Your task to perform on an android device: toggle translation in the chrome app Image 0: 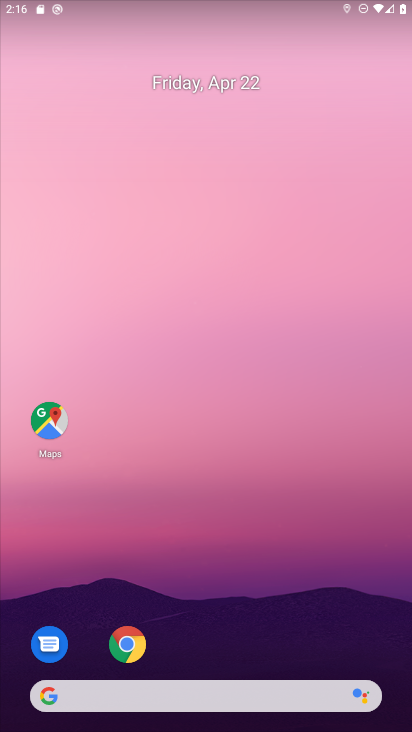
Step 0: drag from (226, 364) to (217, 142)
Your task to perform on an android device: toggle translation in the chrome app Image 1: 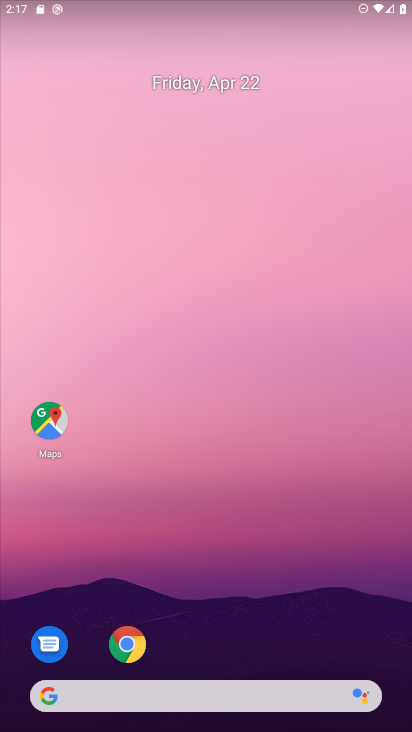
Step 1: drag from (267, 592) to (263, 0)
Your task to perform on an android device: toggle translation in the chrome app Image 2: 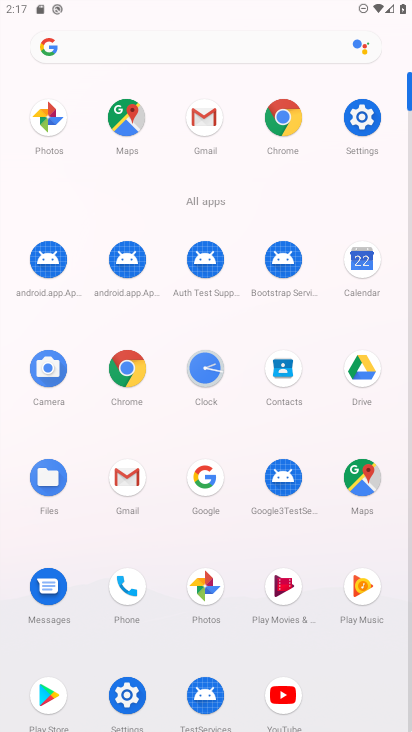
Step 2: click (283, 121)
Your task to perform on an android device: toggle translation in the chrome app Image 3: 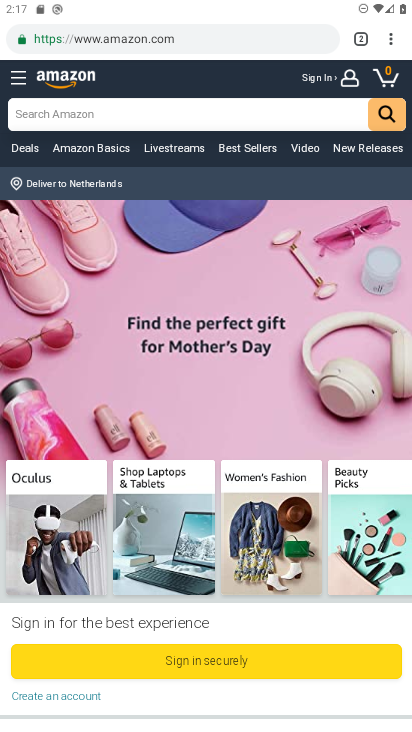
Step 3: drag from (393, 36) to (265, 501)
Your task to perform on an android device: toggle translation in the chrome app Image 4: 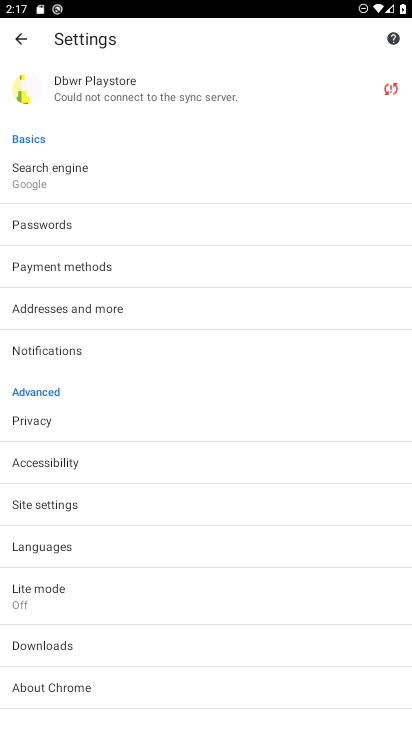
Step 4: click (54, 545)
Your task to perform on an android device: toggle translation in the chrome app Image 5: 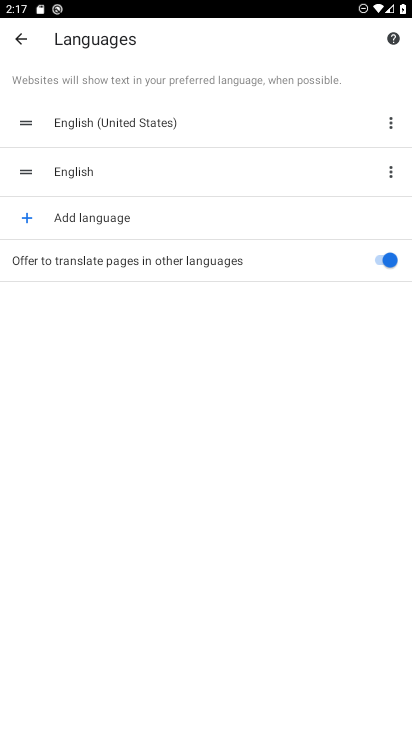
Step 5: click (384, 262)
Your task to perform on an android device: toggle translation in the chrome app Image 6: 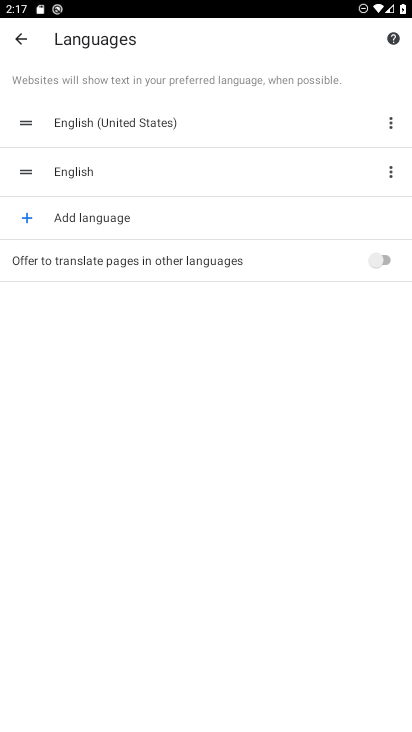
Step 6: task complete